Your task to perform on an android device: Do I have any events today? Image 0: 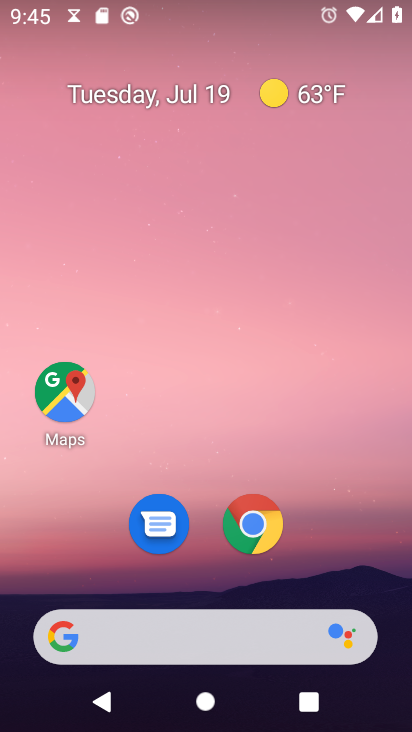
Step 0: click (164, 638)
Your task to perform on an android device: Do I have any events today? Image 1: 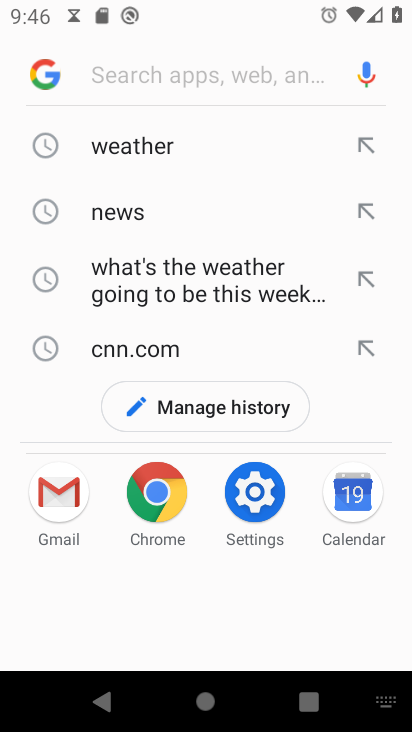
Step 1: click (349, 497)
Your task to perform on an android device: Do I have any events today? Image 2: 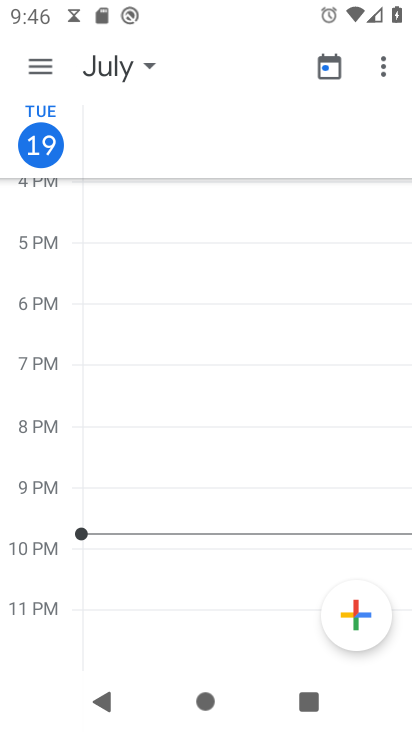
Step 2: click (45, 70)
Your task to perform on an android device: Do I have any events today? Image 3: 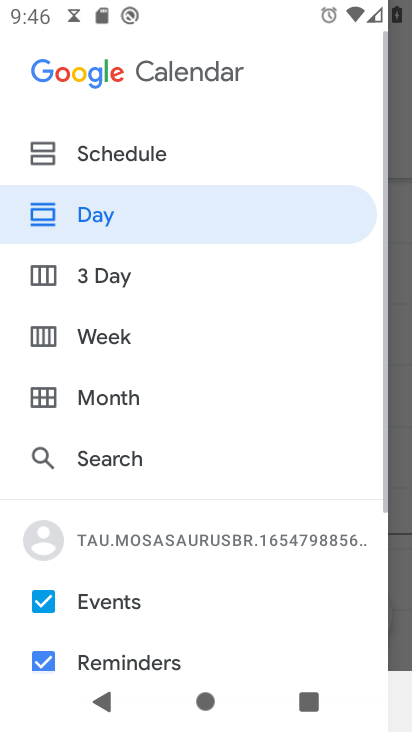
Step 3: click (130, 150)
Your task to perform on an android device: Do I have any events today? Image 4: 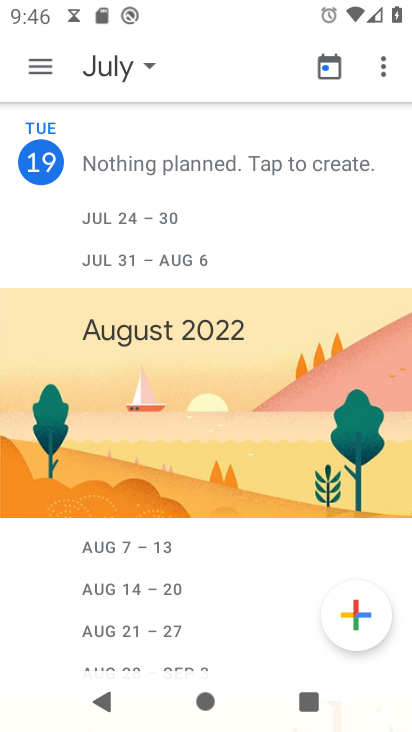
Step 4: task complete